Your task to perform on an android device: Go to sound settings Image 0: 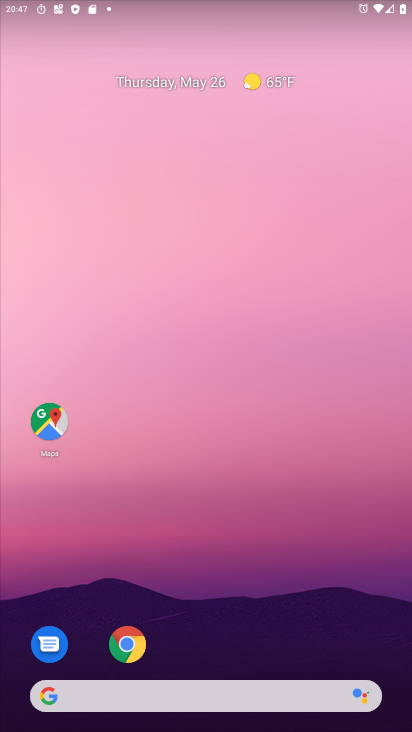
Step 0: drag from (291, 56) to (375, 32)
Your task to perform on an android device: Go to sound settings Image 1: 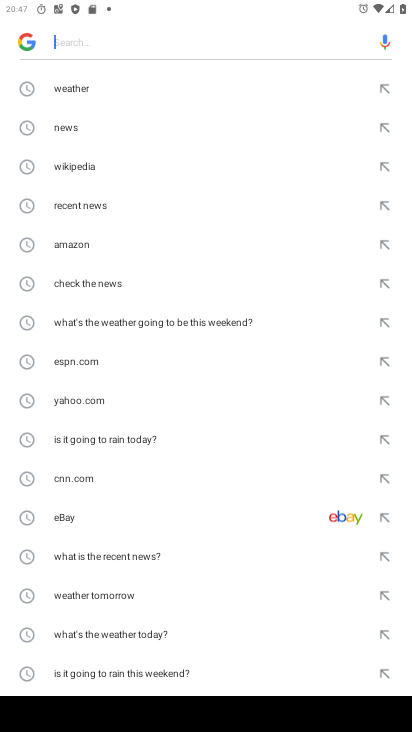
Step 1: press back button
Your task to perform on an android device: Go to sound settings Image 2: 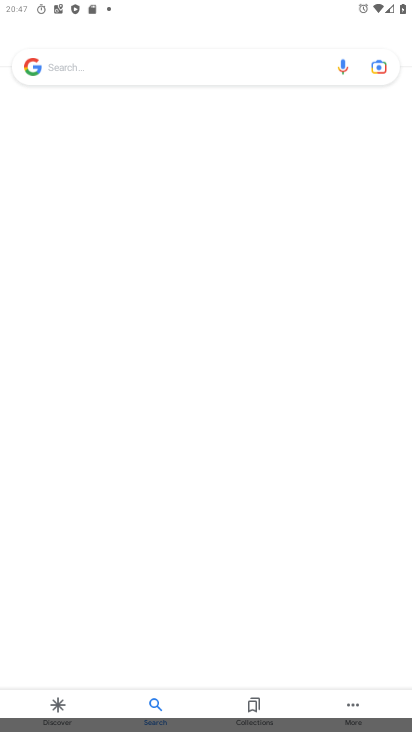
Step 2: press home button
Your task to perform on an android device: Go to sound settings Image 3: 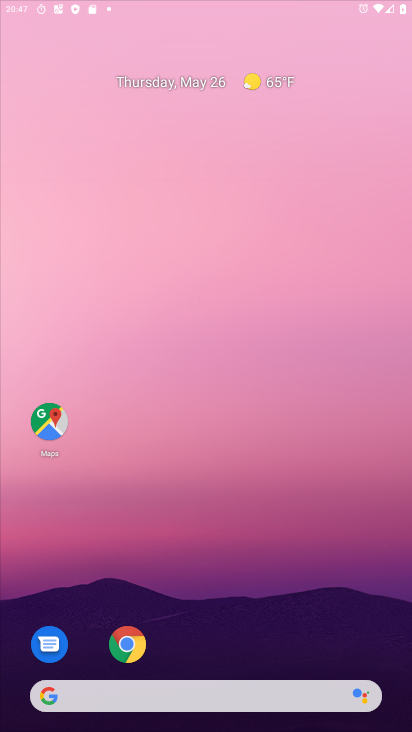
Step 3: drag from (188, 645) to (195, 126)
Your task to perform on an android device: Go to sound settings Image 4: 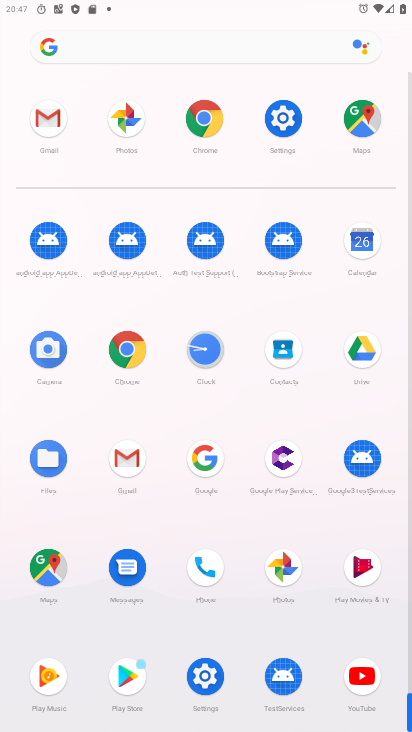
Step 4: click (288, 113)
Your task to perform on an android device: Go to sound settings Image 5: 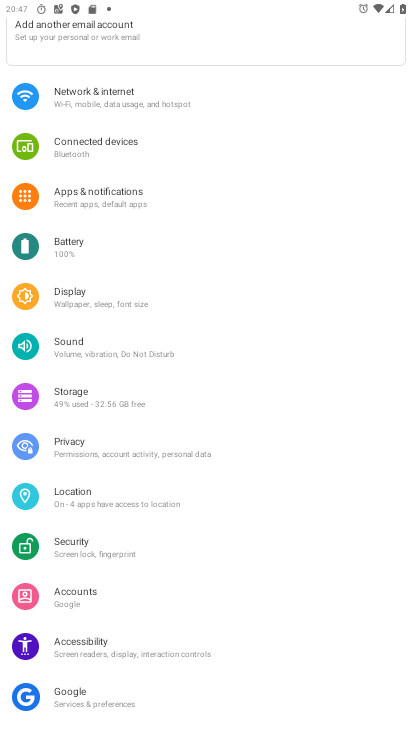
Step 5: click (97, 342)
Your task to perform on an android device: Go to sound settings Image 6: 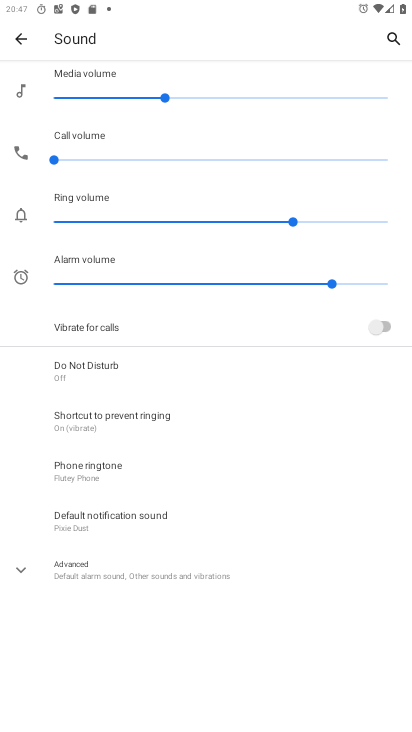
Step 6: task complete